Your task to perform on an android device: Open internet settings Image 0: 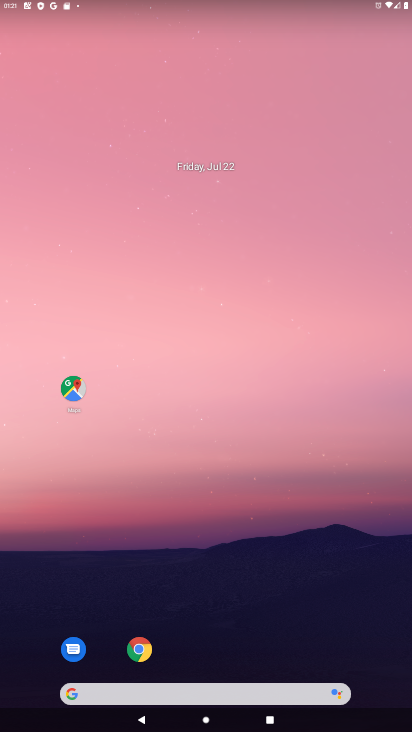
Step 0: press home button
Your task to perform on an android device: Open internet settings Image 1: 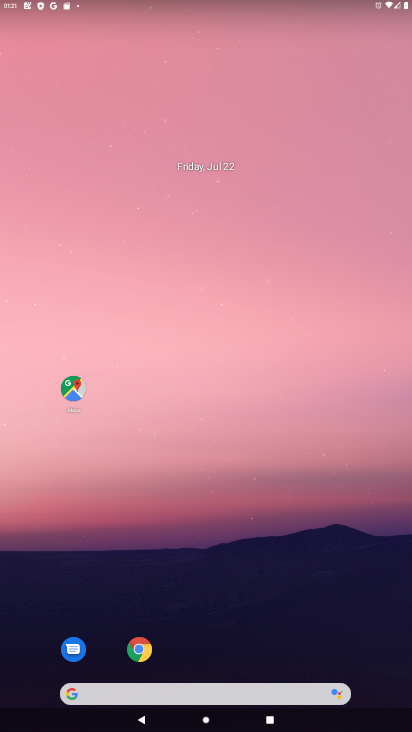
Step 1: drag from (338, 619) to (245, 158)
Your task to perform on an android device: Open internet settings Image 2: 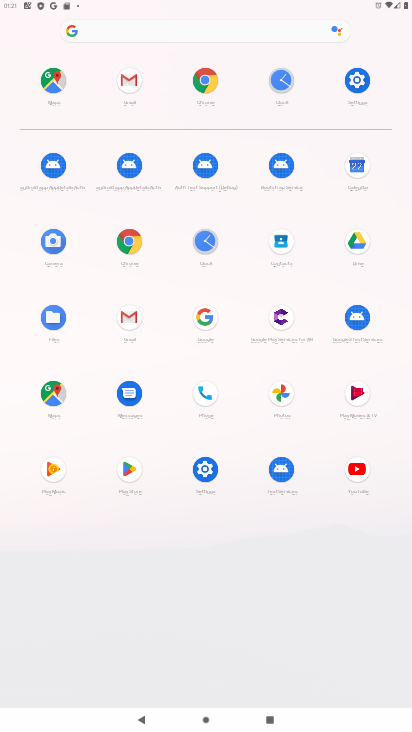
Step 2: click (352, 82)
Your task to perform on an android device: Open internet settings Image 3: 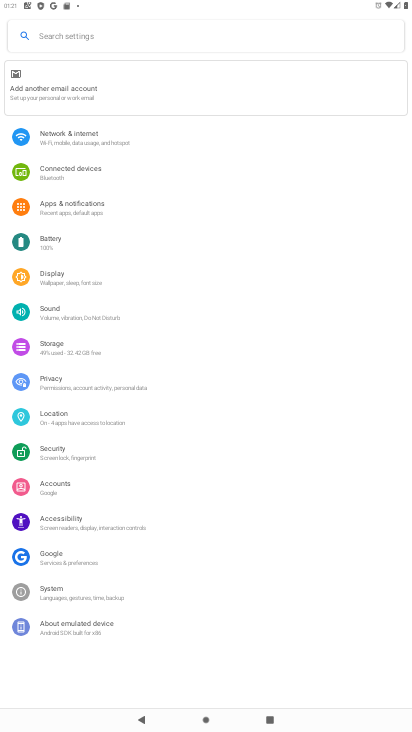
Step 3: click (93, 138)
Your task to perform on an android device: Open internet settings Image 4: 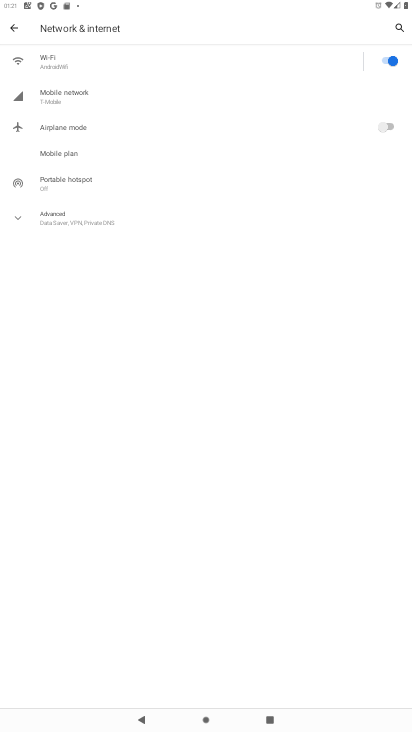
Step 4: click (90, 235)
Your task to perform on an android device: Open internet settings Image 5: 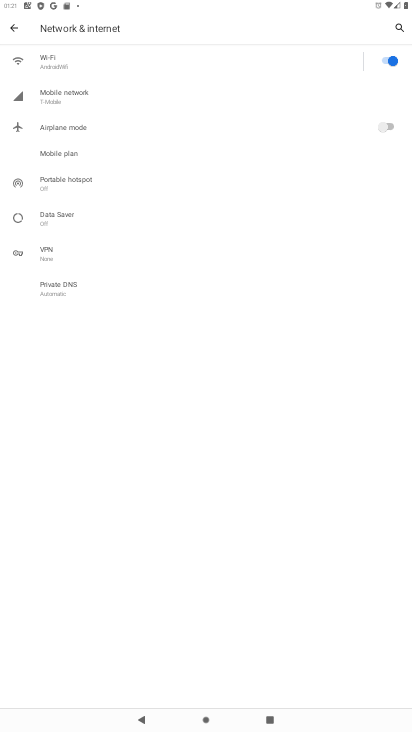
Step 5: task complete